Your task to perform on an android device: Open Google Chrome Image 0: 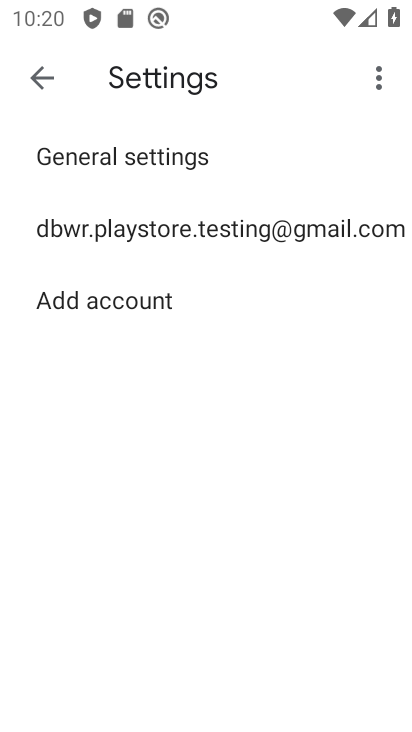
Step 0: press home button
Your task to perform on an android device: Open Google Chrome Image 1: 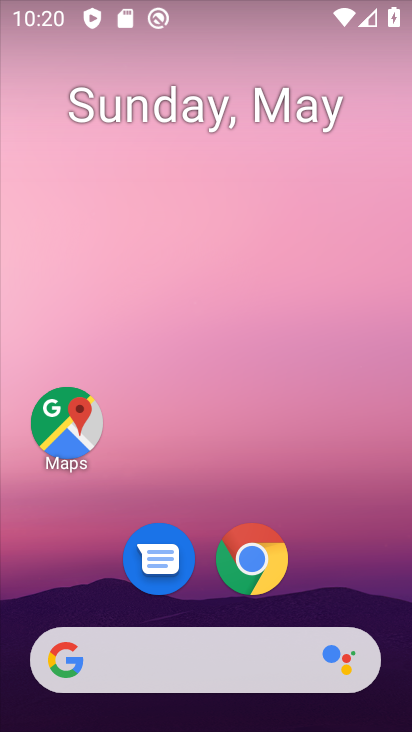
Step 1: click (246, 563)
Your task to perform on an android device: Open Google Chrome Image 2: 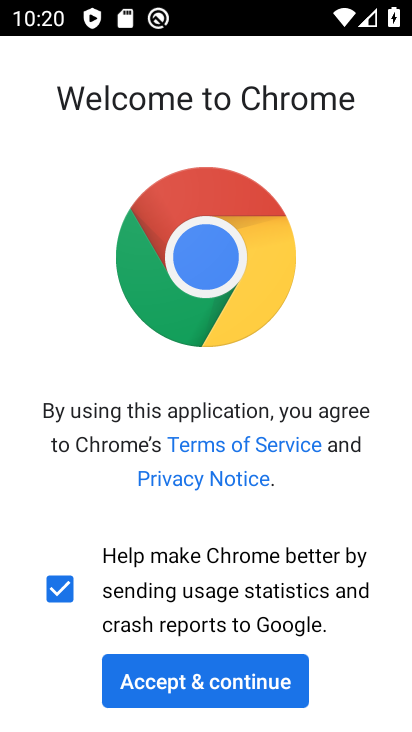
Step 2: click (169, 670)
Your task to perform on an android device: Open Google Chrome Image 3: 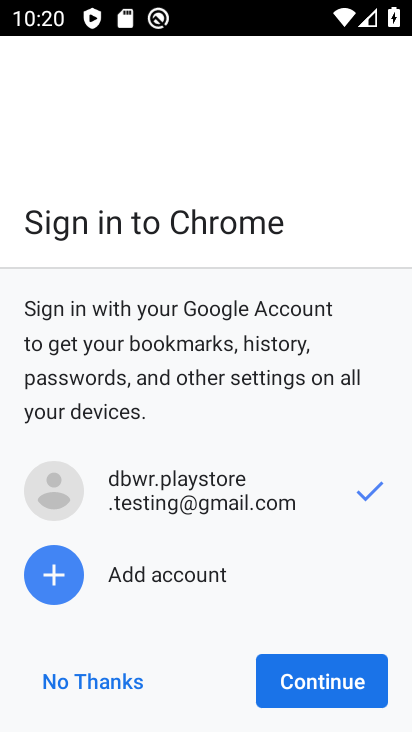
Step 3: click (169, 670)
Your task to perform on an android device: Open Google Chrome Image 4: 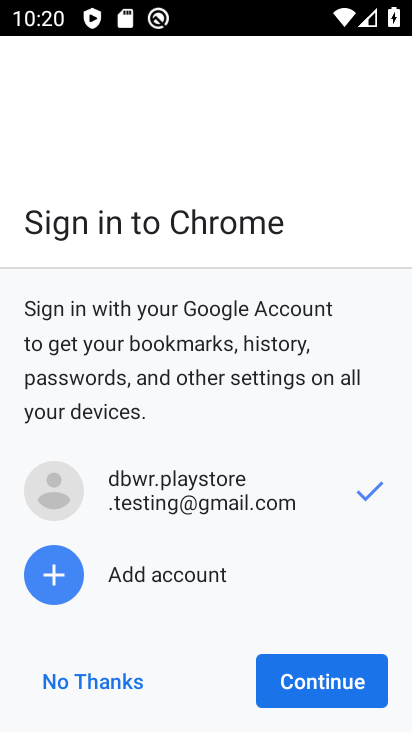
Step 4: click (333, 670)
Your task to perform on an android device: Open Google Chrome Image 5: 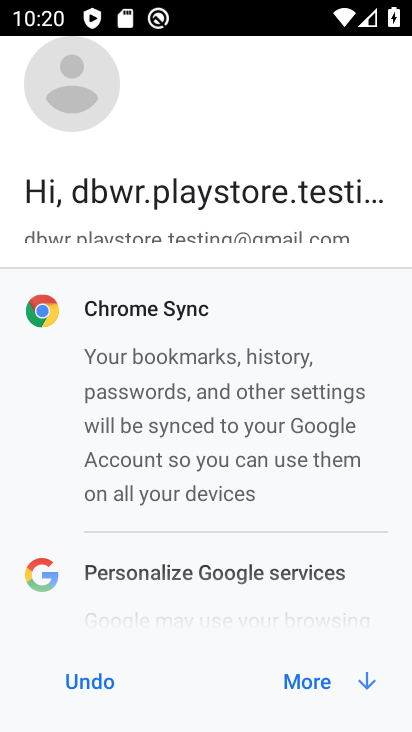
Step 5: click (333, 670)
Your task to perform on an android device: Open Google Chrome Image 6: 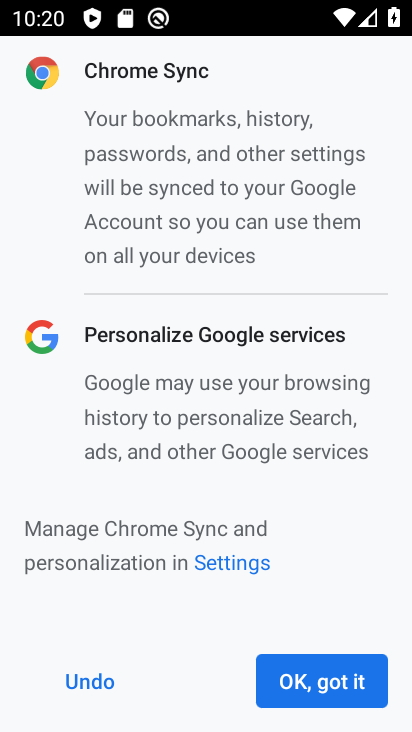
Step 6: click (333, 670)
Your task to perform on an android device: Open Google Chrome Image 7: 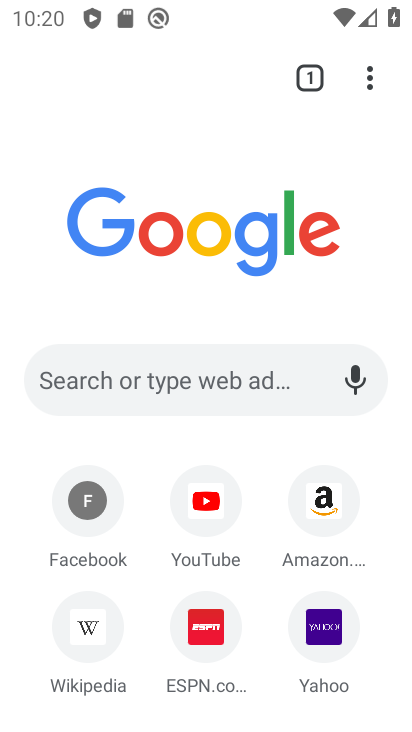
Step 7: task complete